Your task to perform on an android device: Add usb-b to the cart on target.com Image 0: 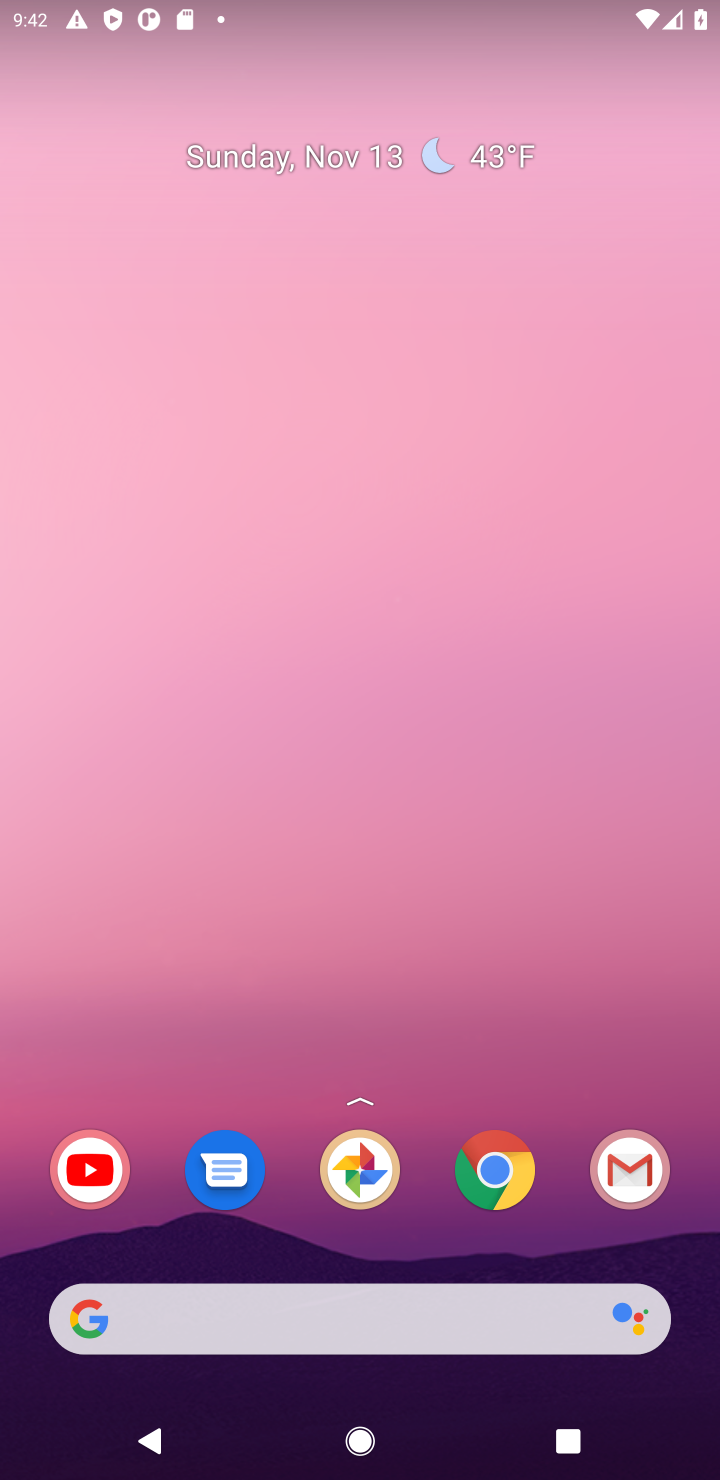
Step 0: drag from (339, 1203) to (196, 24)
Your task to perform on an android device: Add usb-b to the cart on target.com Image 1: 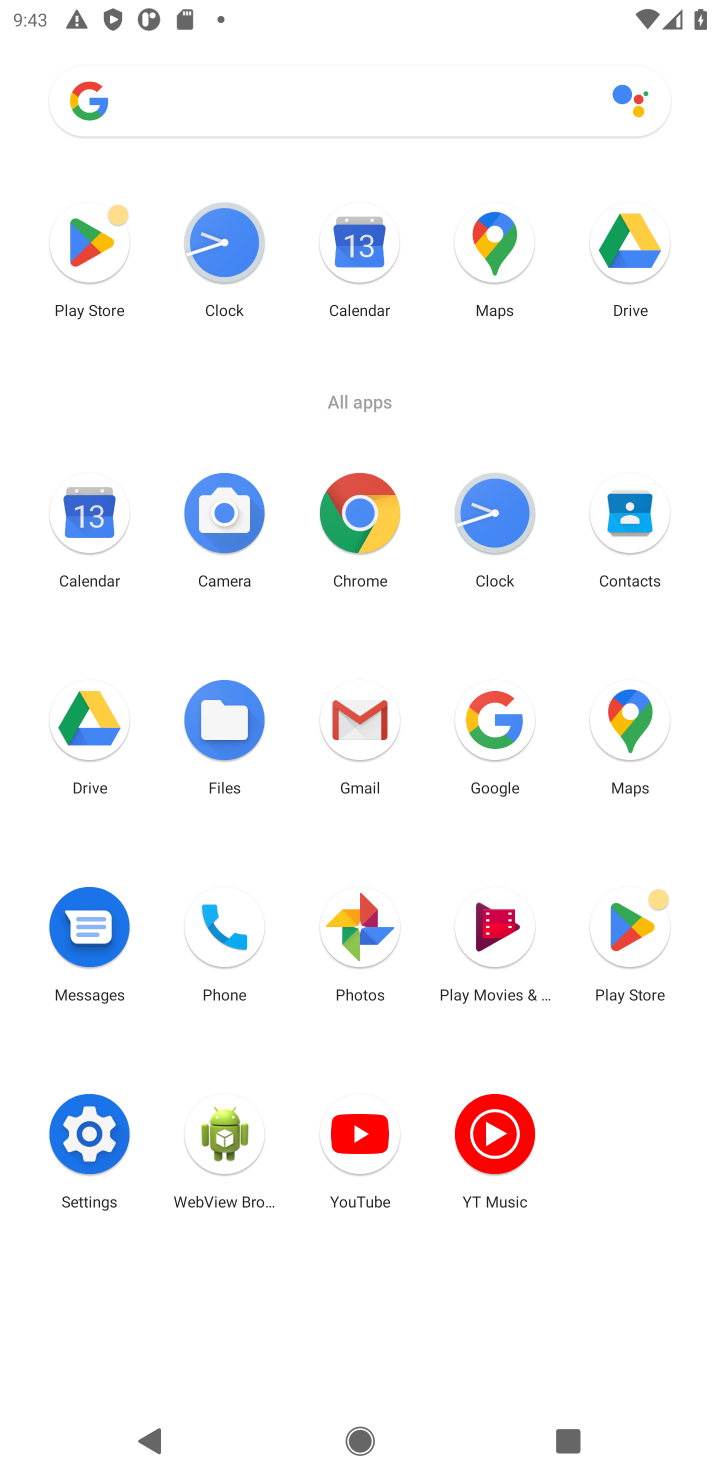
Step 1: click (352, 515)
Your task to perform on an android device: Add usb-b to the cart on target.com Image 2: 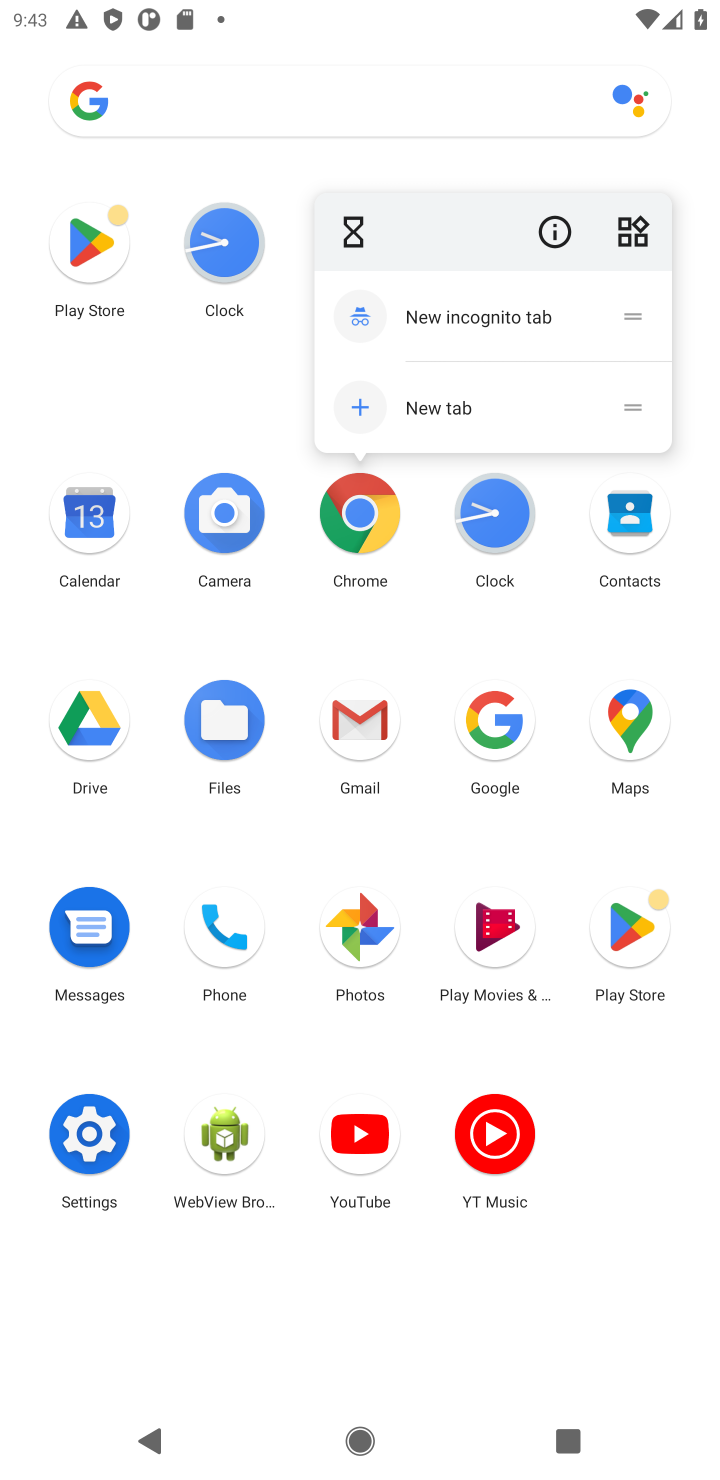
Step 2: click (354, 517)
Your task to perform on an android device: Add usb-b to the cart on target.com Image 3: 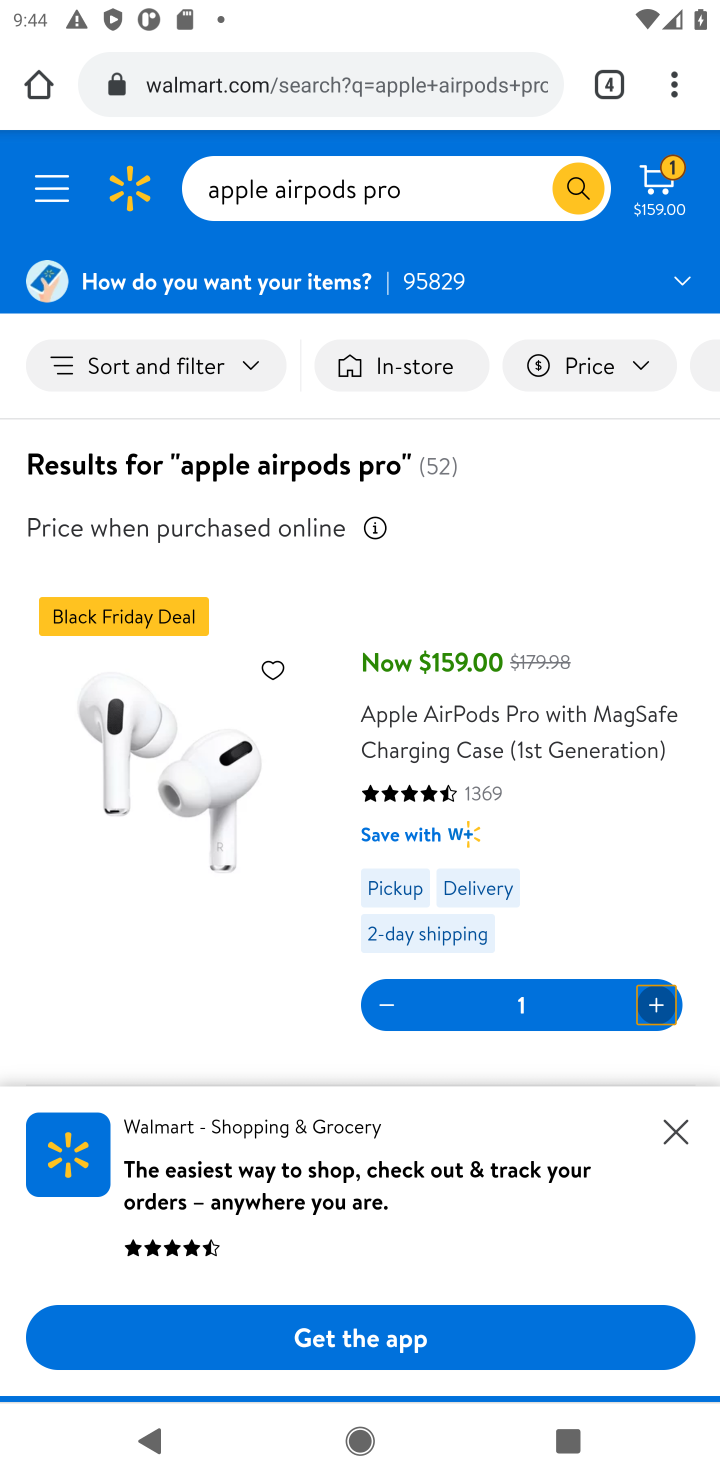
Step 3: click (496, 67)
Your task to perform on an android device: Add usb-b to the cart on target.com Image 4: 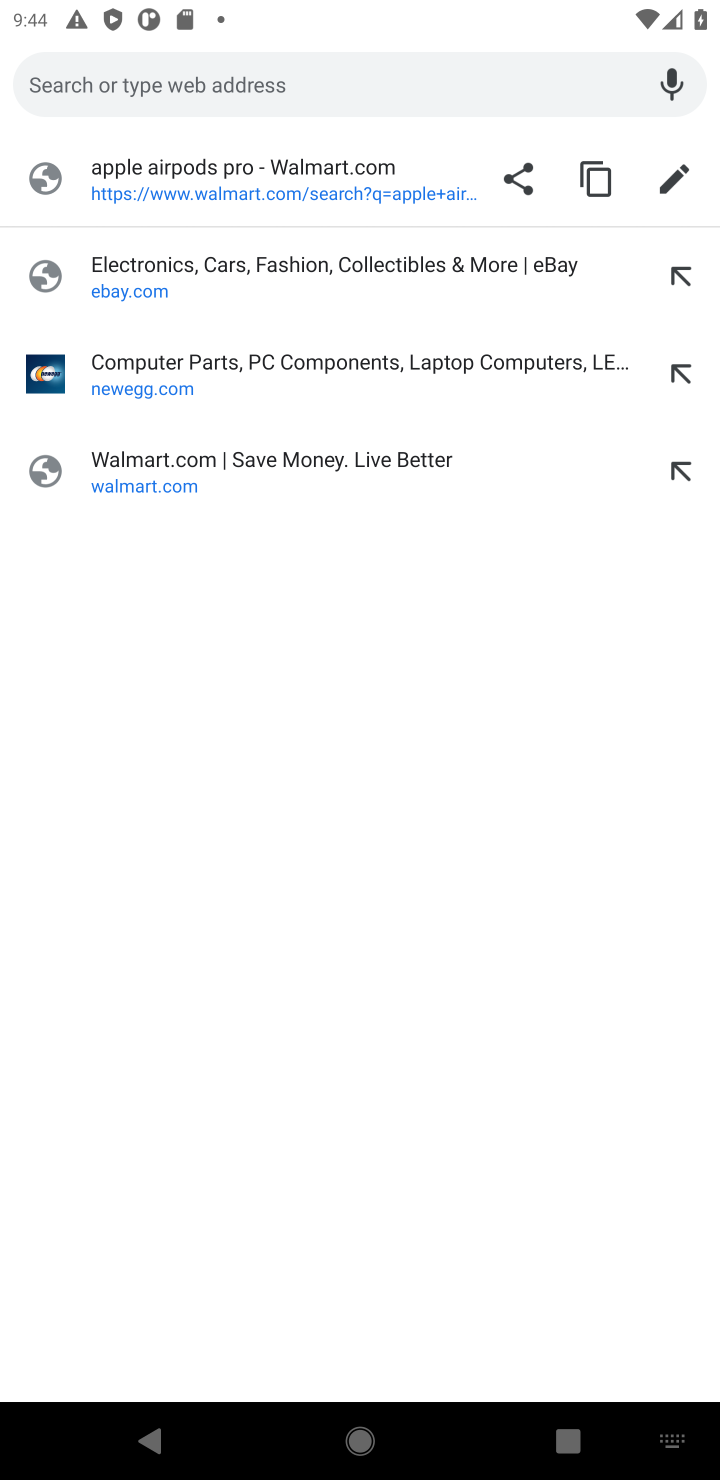
Step 4: type "target.com"
Your task to perform on an android device: Add usb-b to the cart on target.com Image 5: 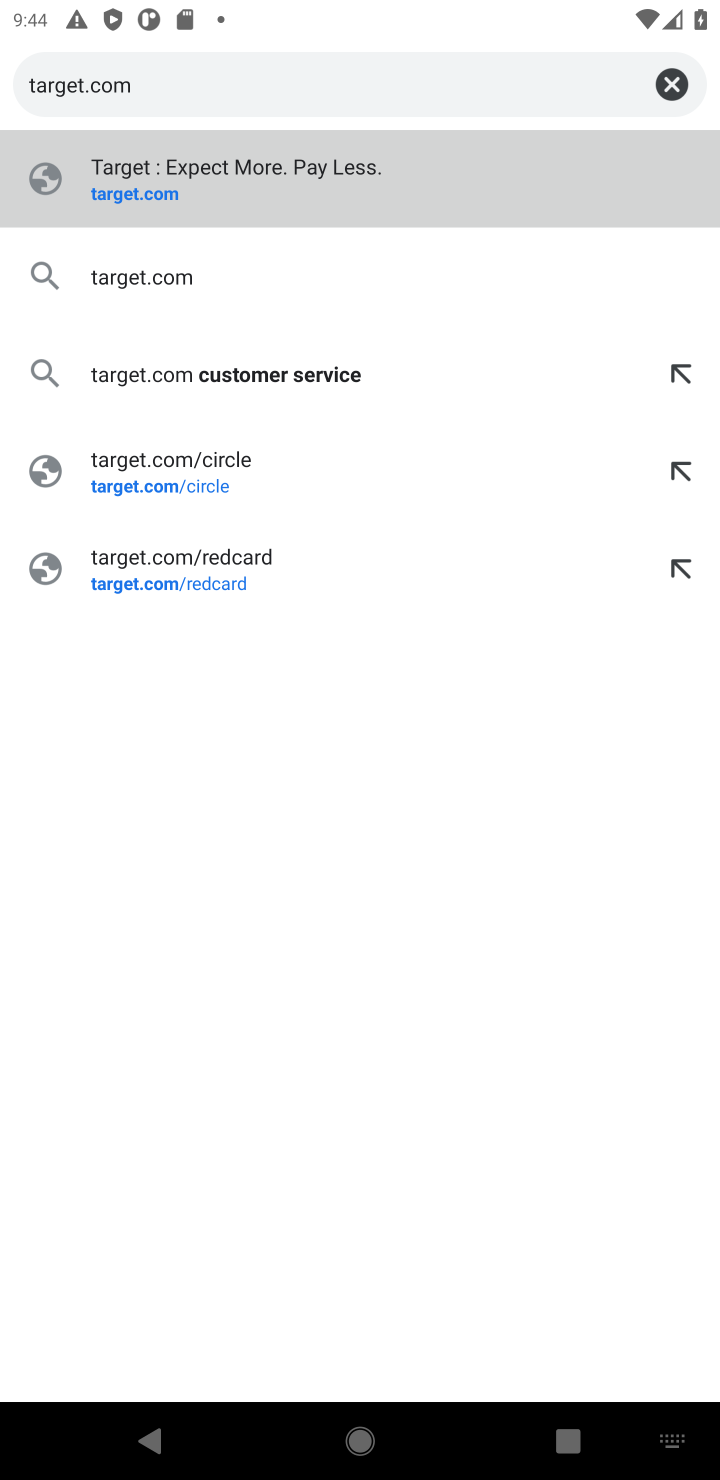
Step 5: press enter
Your task to perform on an android device: Add usb-b to the cart on target.com Image 6: 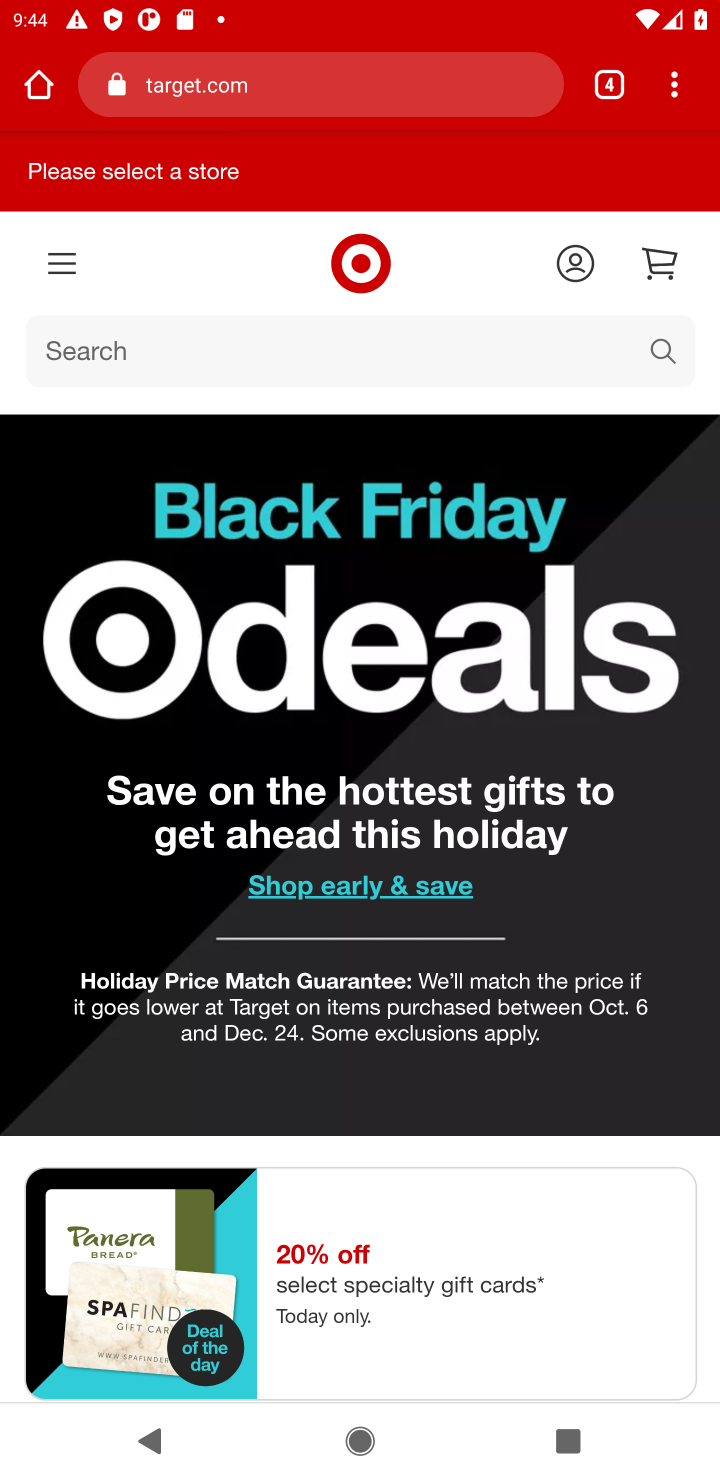
Step 6: click (149, 347)
Your task to perform on an android device: Add usb-b to the cart on target.com Image 7: 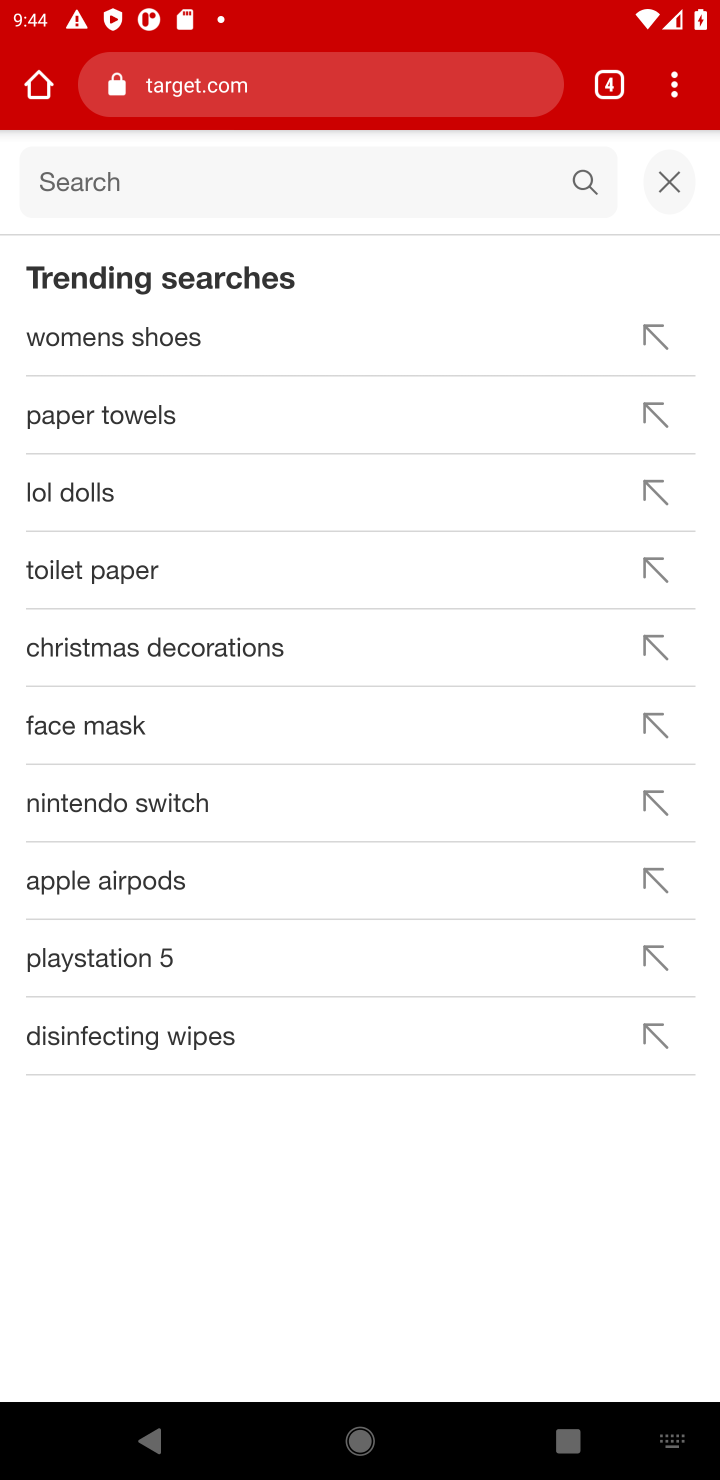
Step 7: type "usb-b"
Your task to perform on an android device: Add usb-b to the cart on target.com Image 8: 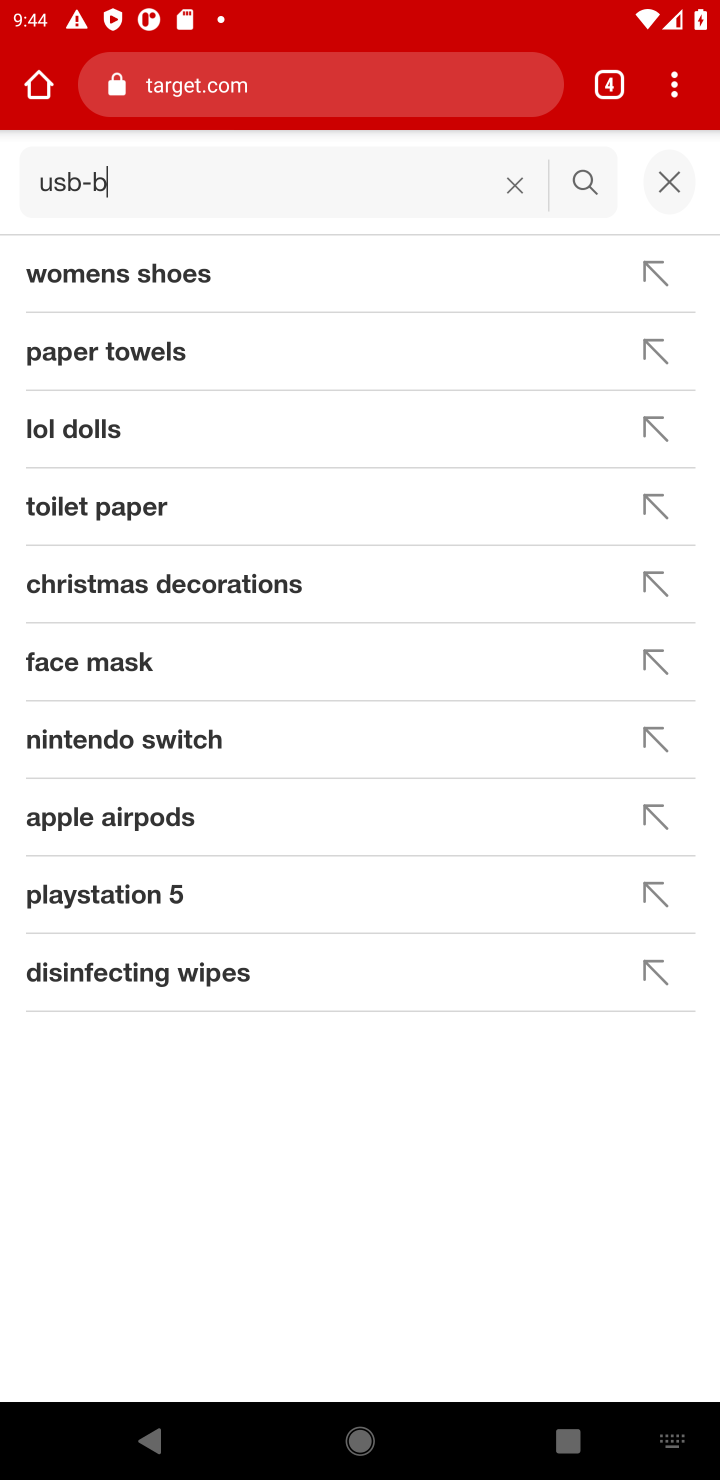
Step 8: press enter
Your task to perform on an android device: Add usb-b to the cart on target.com Image 9: 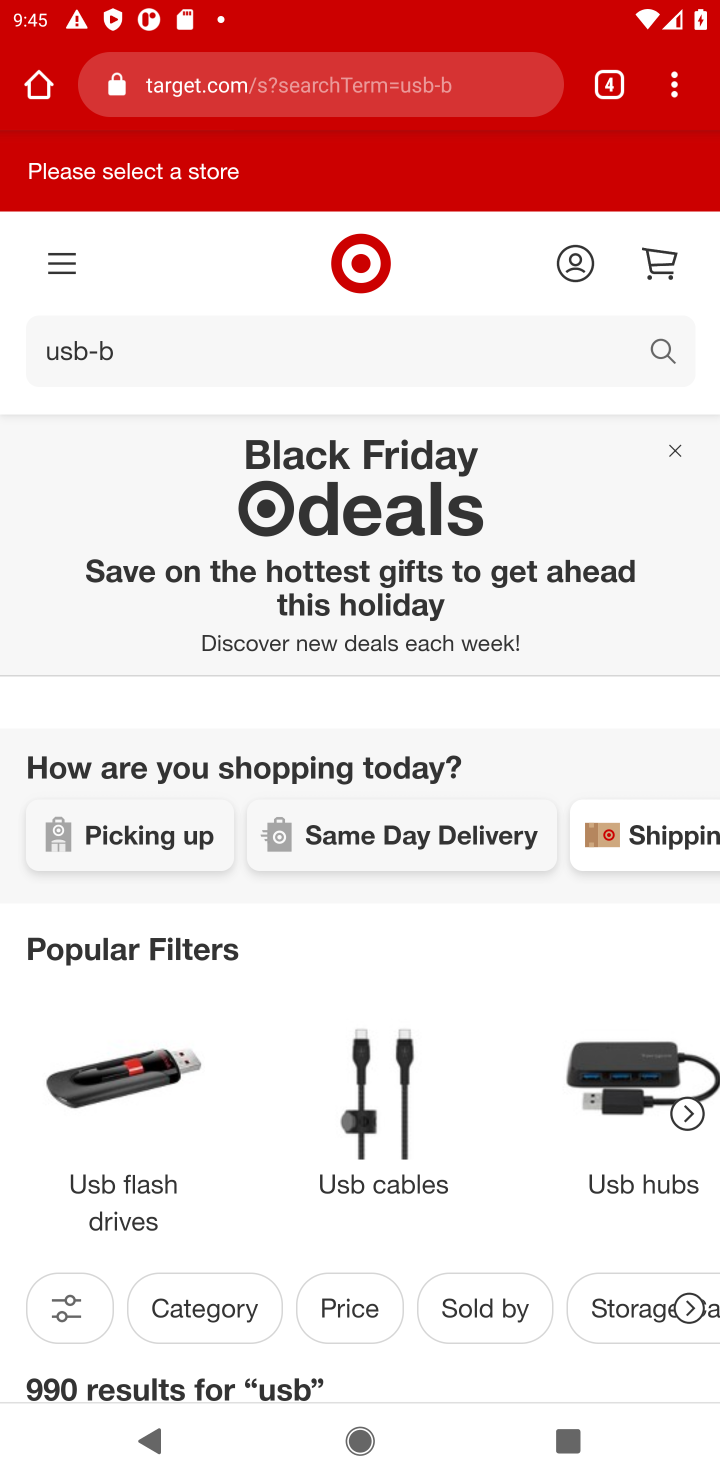
Step 9: drag from (148, 778) to (211, 391)
Your task to perform on an android device: Add usb-b to the cart on target.com Image 10: 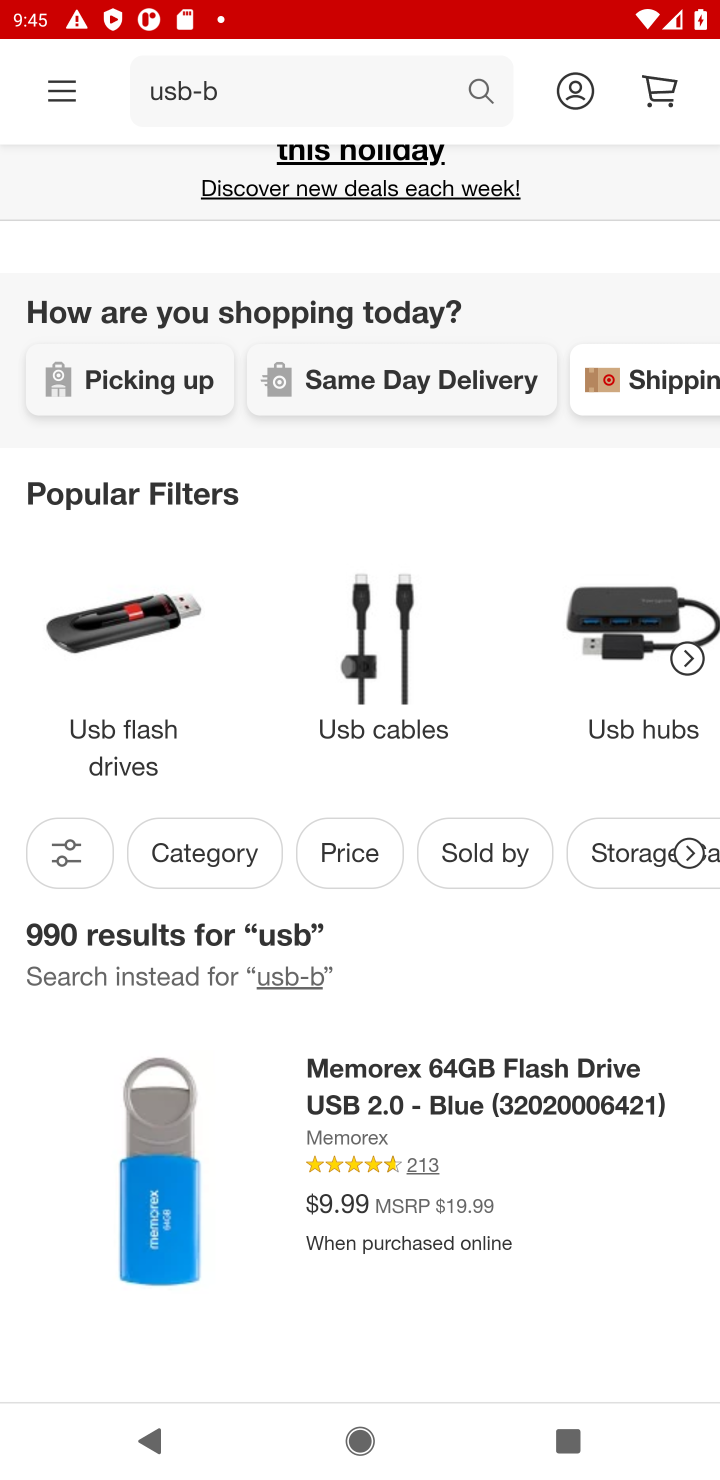
Step 10: click (367, 1152)
Your task to perform on an android device: Add usb-b to the cart on target.com Image 11: 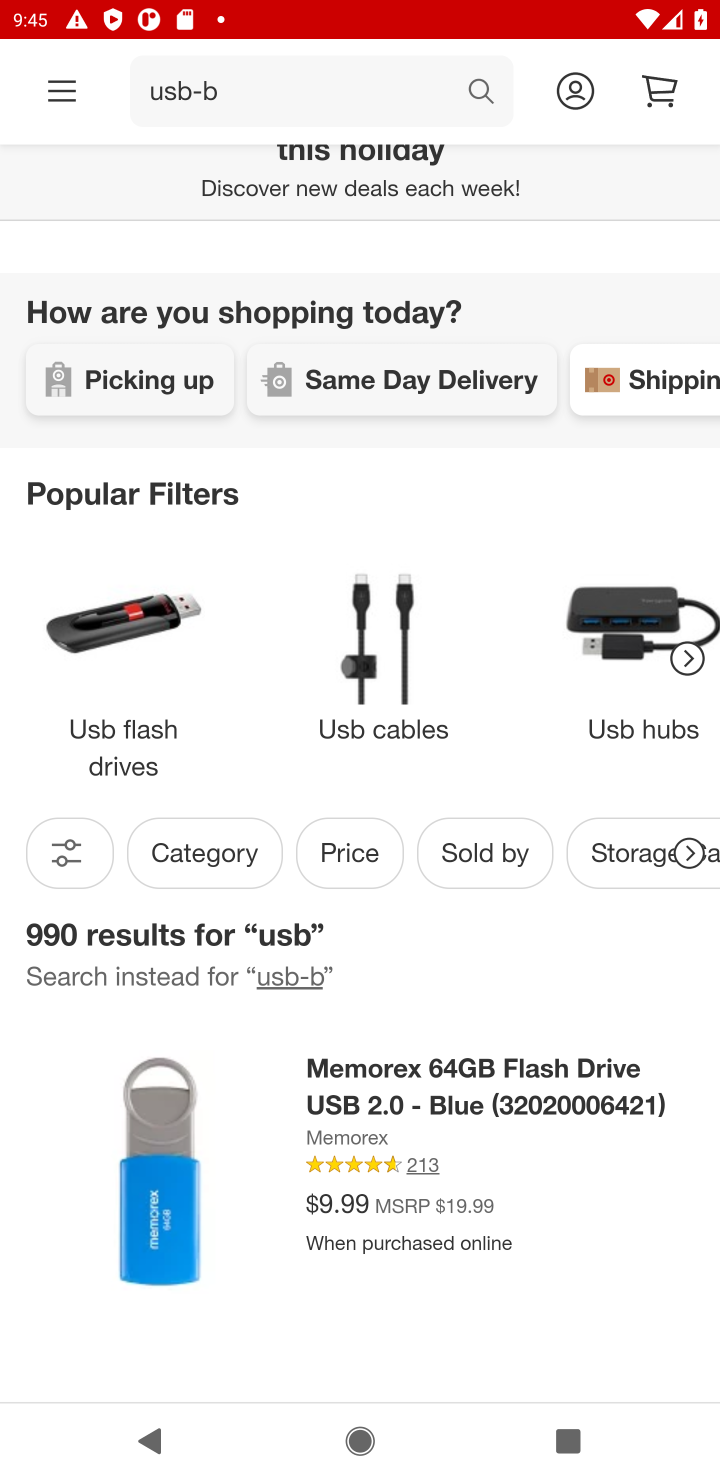
Step 11: click (354, 1094)
Your task to perform on an android device: Add usb-b to the cart on target.com Image 12: 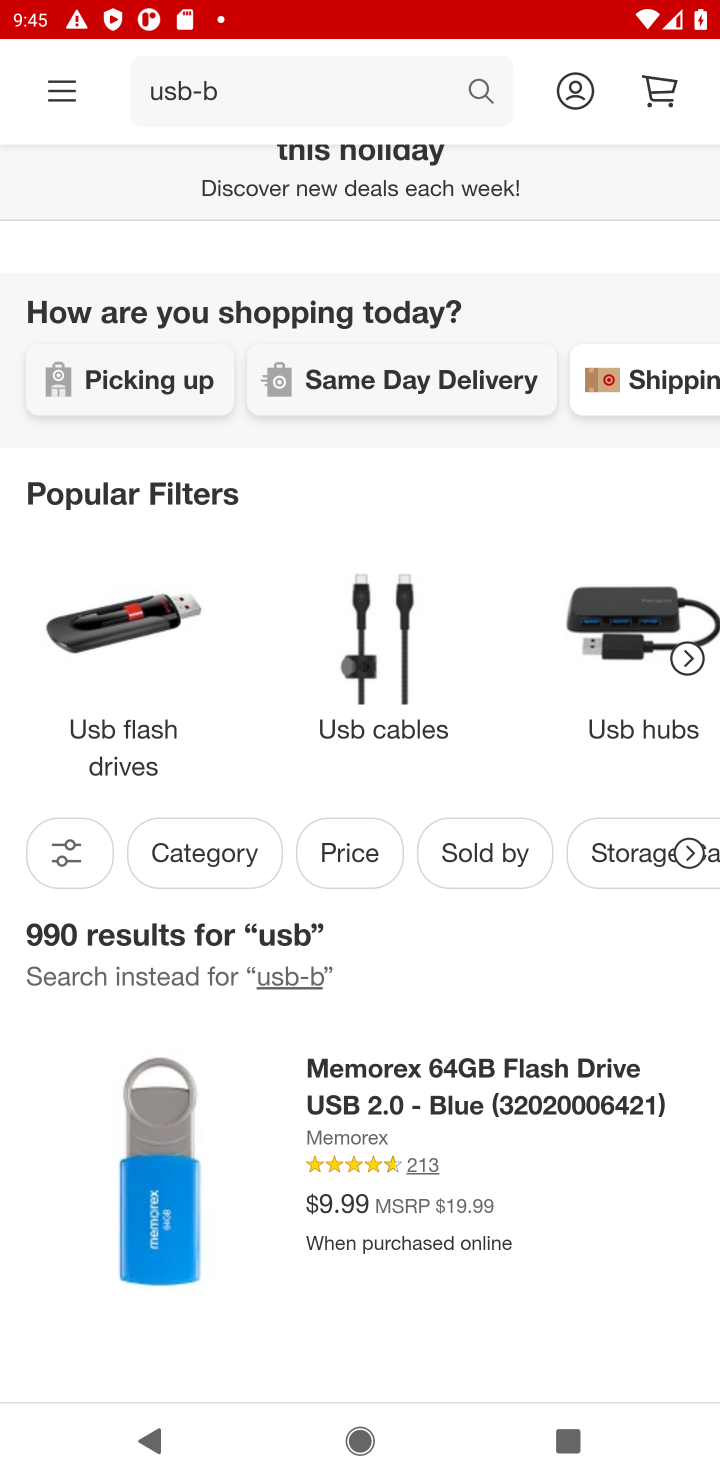
Step 12: click (388, 1105)
Your task to perform on an android device: Add usb-b to the cart on target.com Image 13: 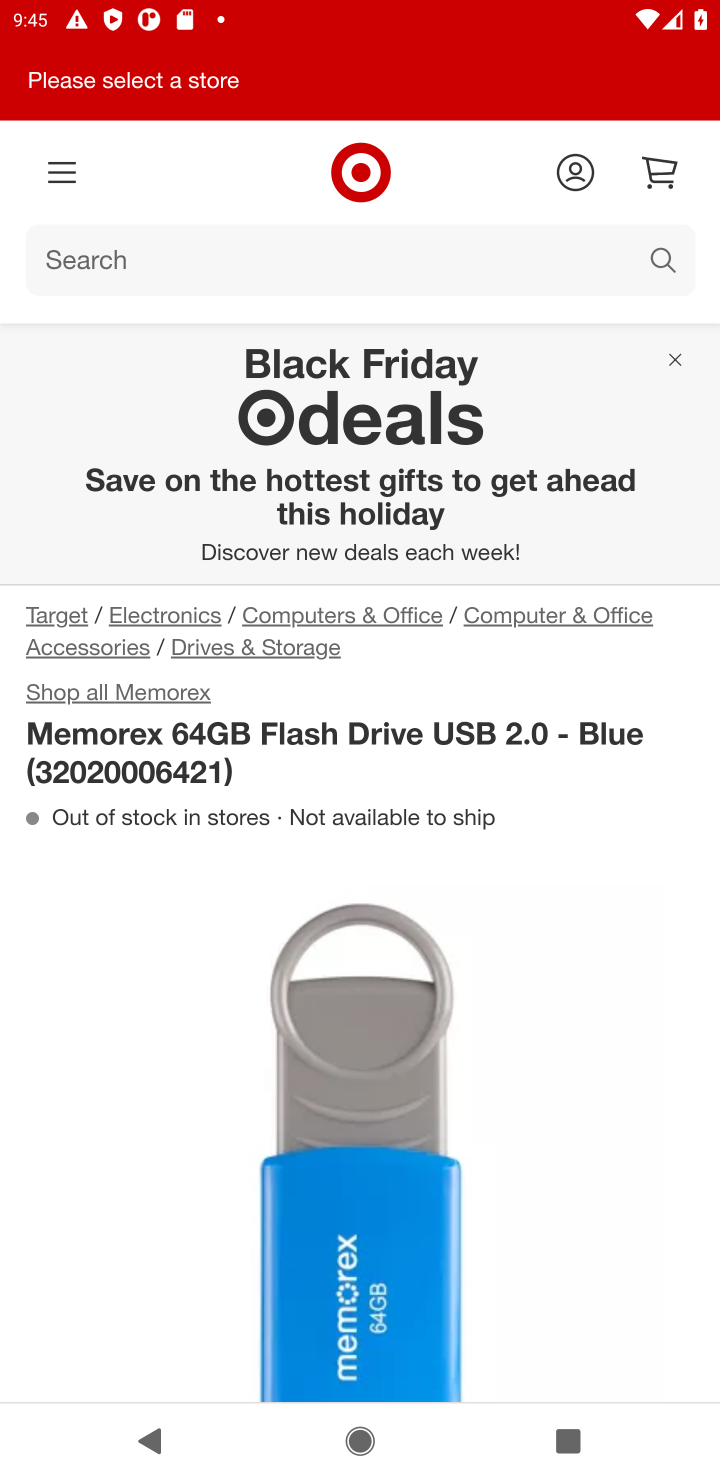
Step 13: drag from (373, 970) to (384, 434)
Your task to perform on an android device: Add usb-b to the cart on target.com Image 14: 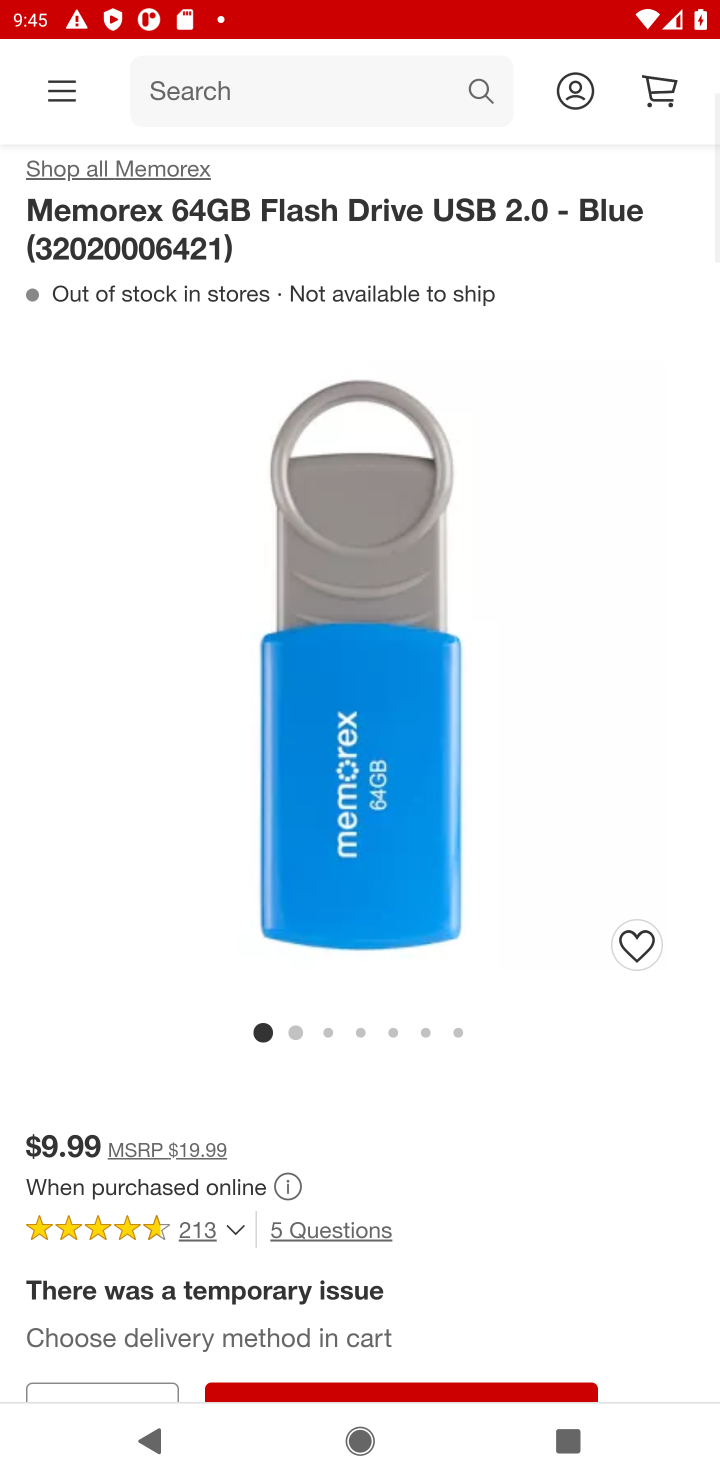
Step 14: drag from (461, 1132) to (447, 427)
Your task to perform on an android device: Add usb-b to the cart on target.com Image 15: 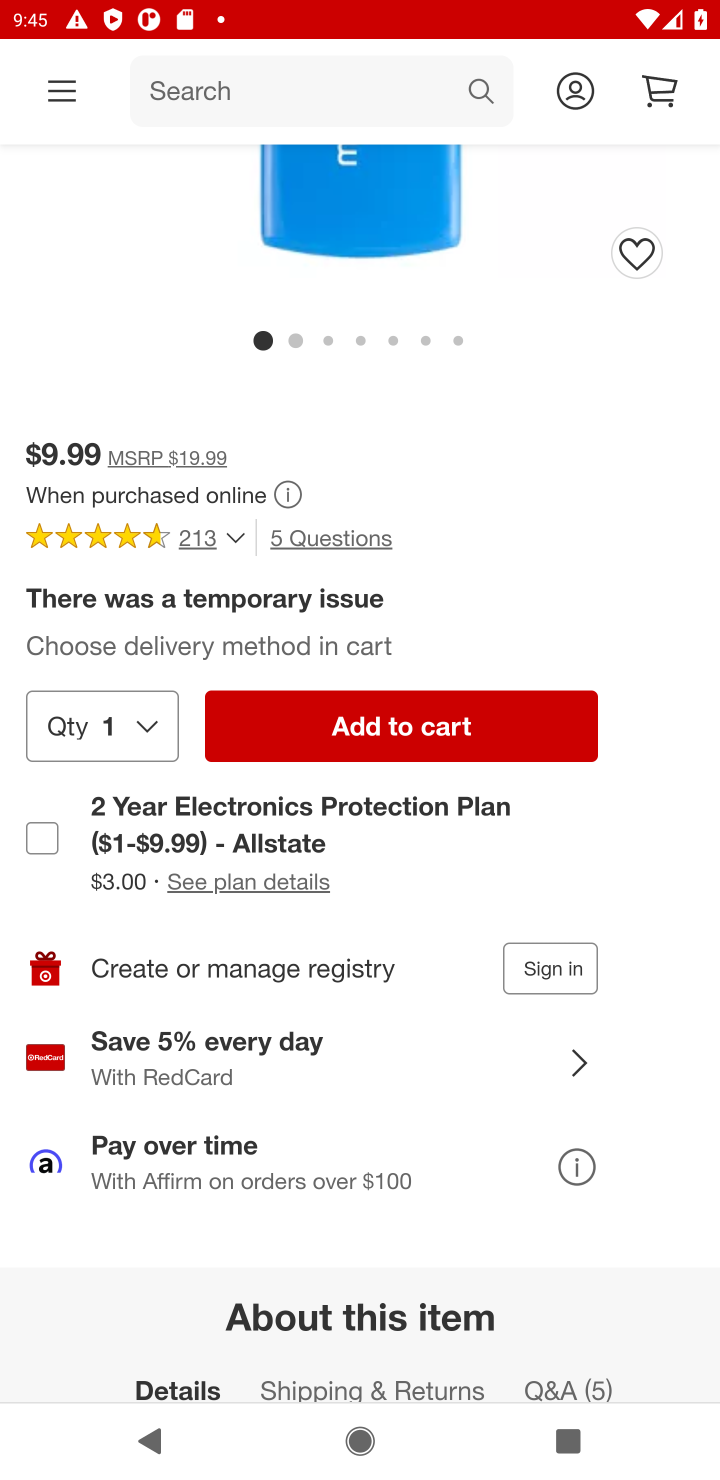
Step 15: click (428, 722)
Your task to perform on an android device: Add usb-b to the cart on target.com Image 16: 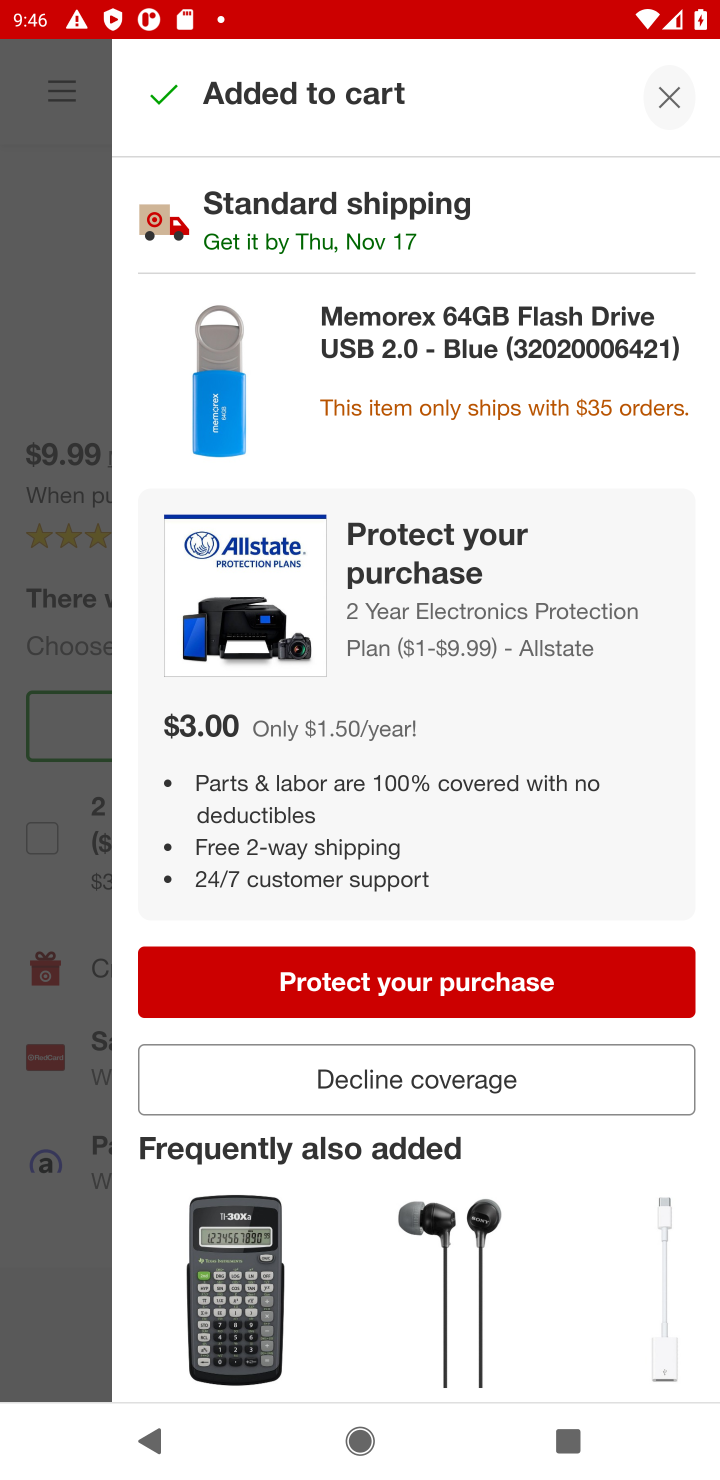
Step 16: task complete